Your task to perform on an android device: toggle notification dots Image 0: 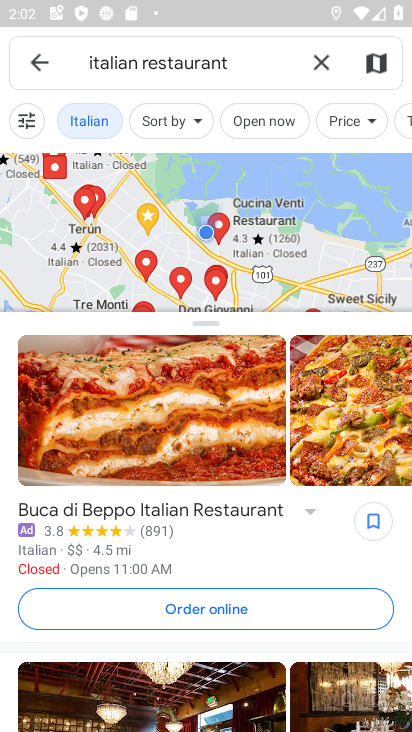
Step 0: press home button
Your task to perform on an android device: toggle notification dots Image 1: 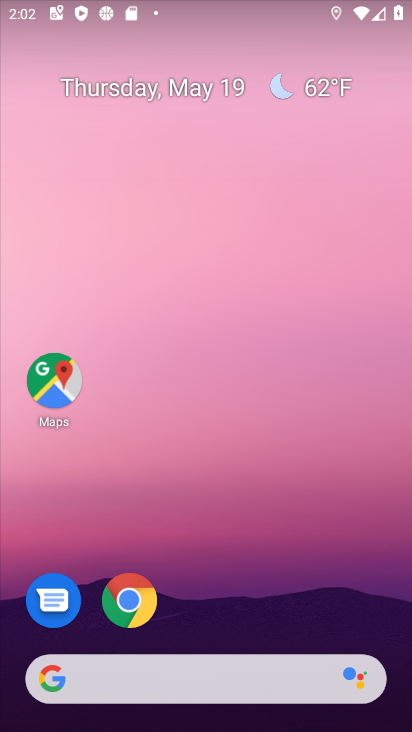
Step 1: drag from (35, 498) to (144, 223)
Your task to perform on an android device: toggle notification dots Image 2: 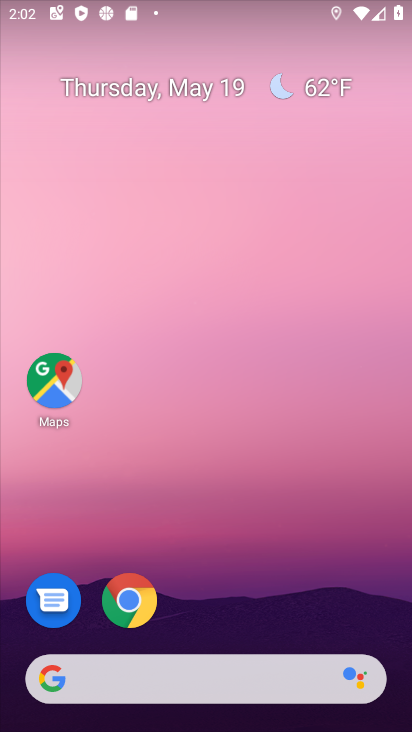
Step 2: drag from (0, 704) to (167, 196)
Your task to perform on an android device: toggle notification dots Image 3: 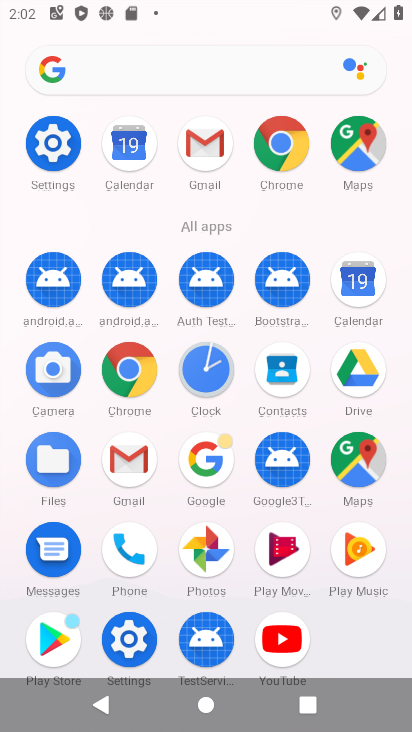
Step 3: click (55, 156)
Your task to perform on an android device: toggle notification dots Image 4: 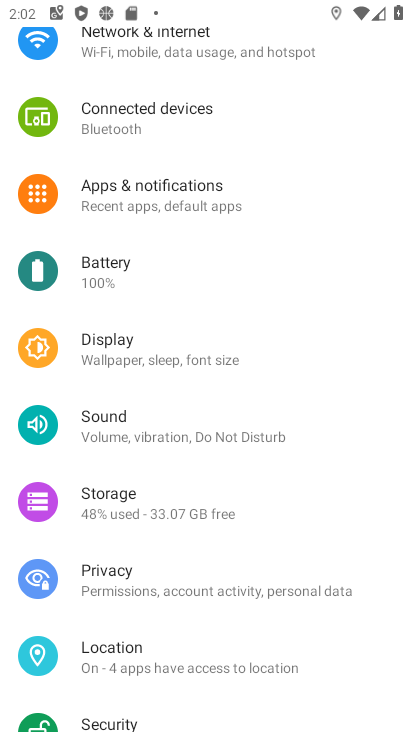
Step 4: click (155, 188)
Your task to perform on an android device: toggle notification dots Image 5: 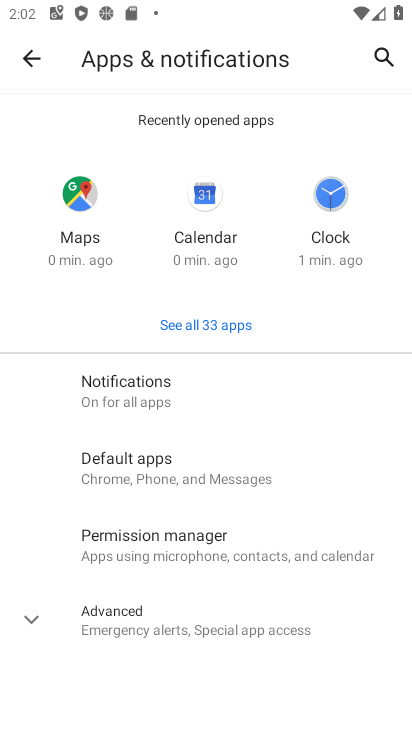
Step 5: click (135, 392)
Your task to perform on an android device: toggle notification dots Image 6: 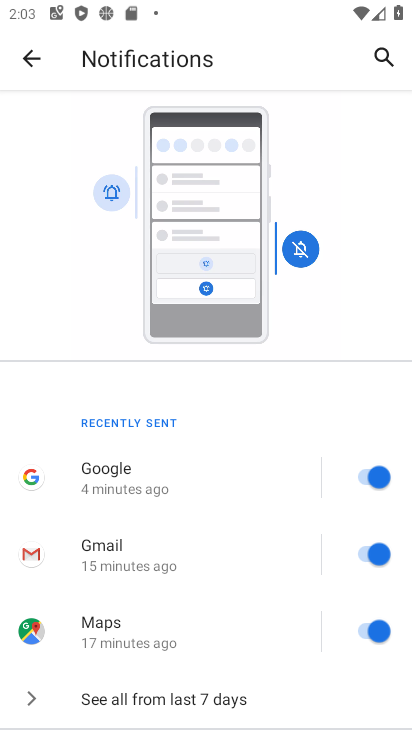
Step 6: drag from (21, 567) to (127, 233)
Your task to perform on an android device: toggle notification dots Image 7: 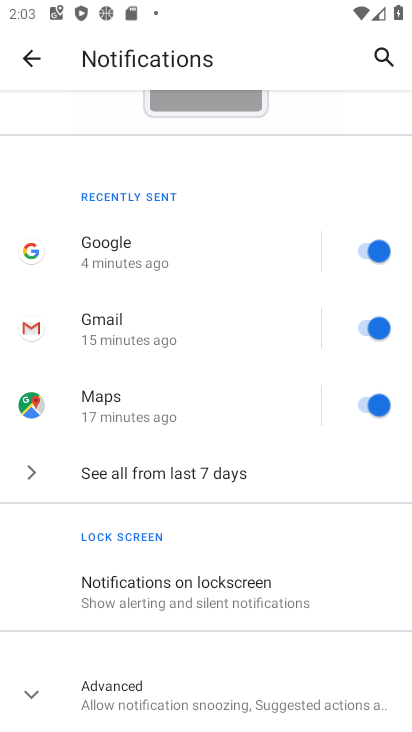
Step 7: drag from (29, 434) to (142, 252)
Your task to perform on an android device: toggle notification dots Image 8: 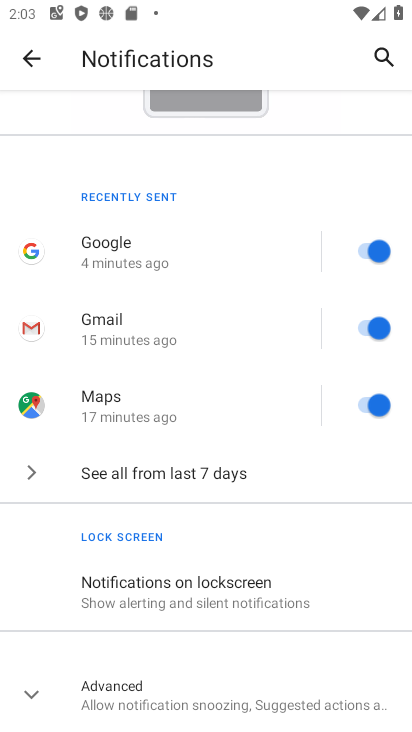
Step 8: click (120, 694)
Your task to perform on an android device: toggle notification dots Image 9: 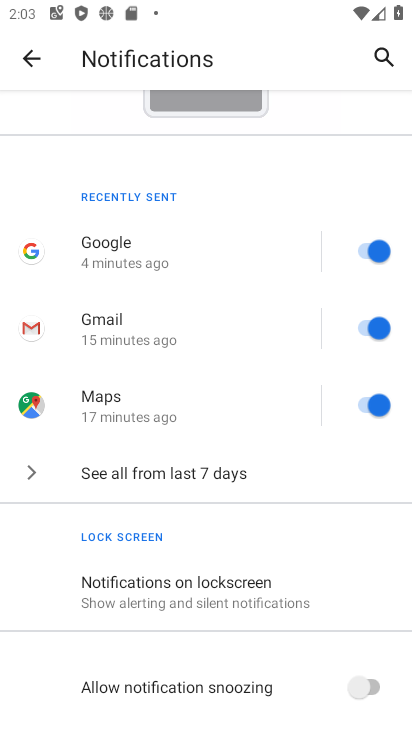
Step 9: drag from (19, 495) to (141, 262)
Your task to perform on an android device: toggle notification dots Image 10: 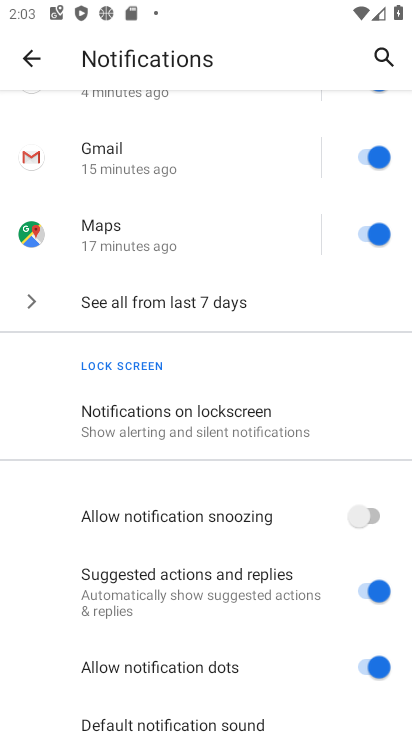
Step 10: click (379, 663)
Your task to perform on an android device: toggle notification dots Image 11: 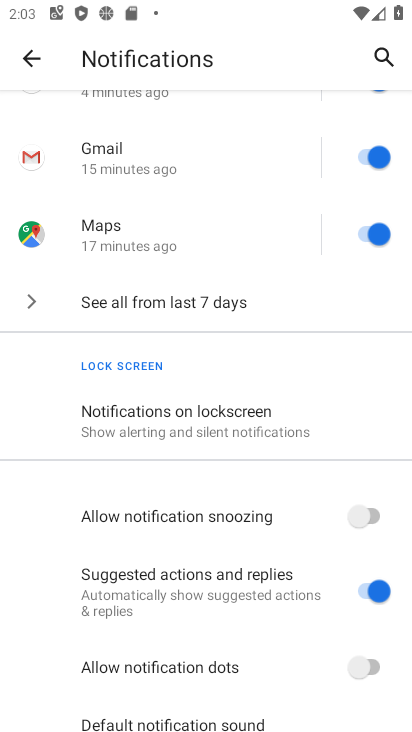
Step 11: task complete